Your task to perform on an android device: Go to Google Image 0: 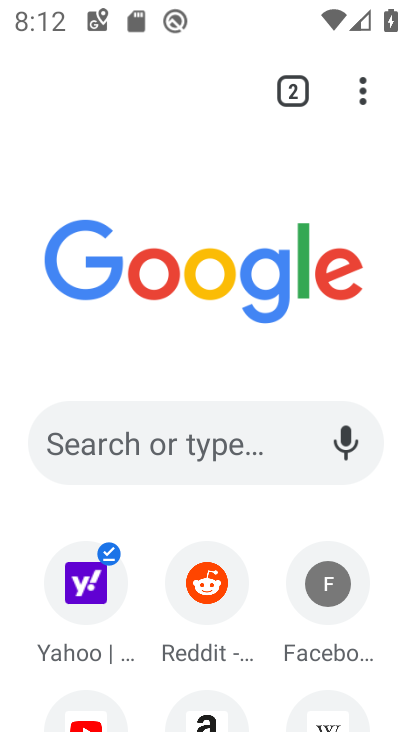
Step 0: task complete